Your task to perform on an android device: toggle notifications settings in the gmail app Image 0: 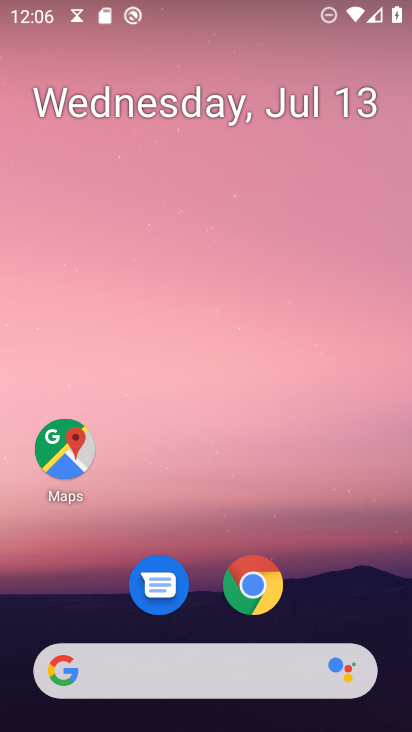
Step 0: press home button
Your task to perform on an android device: toggle notifications settings in the gmail app Image 1: 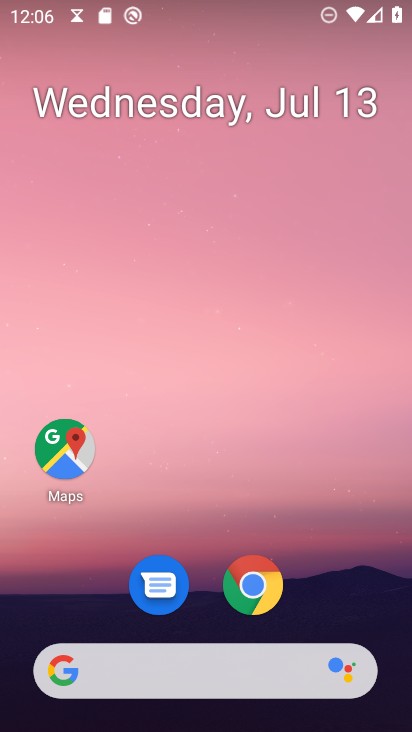
Step 1: drag from (178, 591) to (301, 163)
Your task to perform on an android device: toggle notifications settings in the gmail app Image 2: 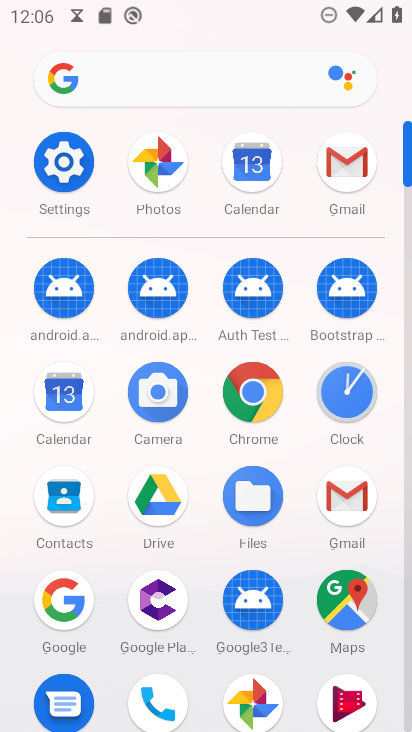
Step 2: click (335, 169)
Your task to perform on an android device: toggle notifications settings in the gmail app Image 3: 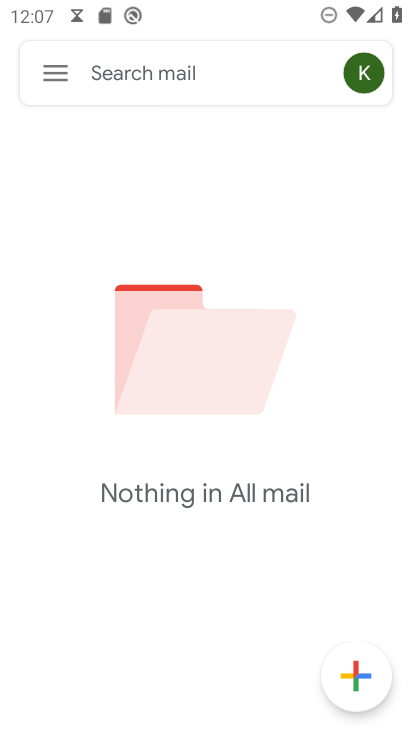
Step 3: click (63, 69)
Your task to perform on an android device: toggle notifications settings in the gmail app Image 4: 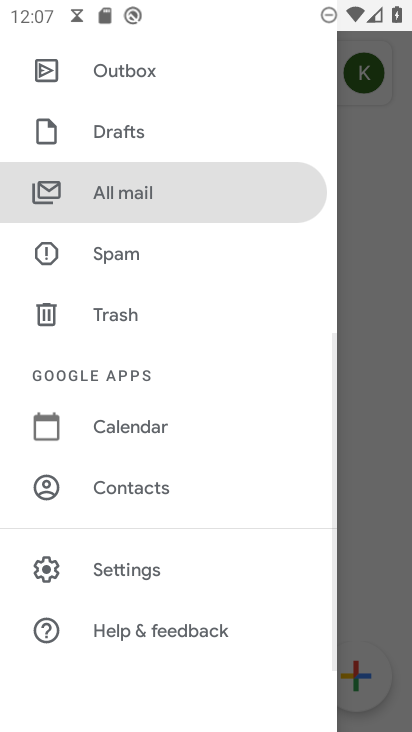
Step 4: click (151, 574)
Your task to perform on an android device: toggle notifications settings in the gmail app Image 5: 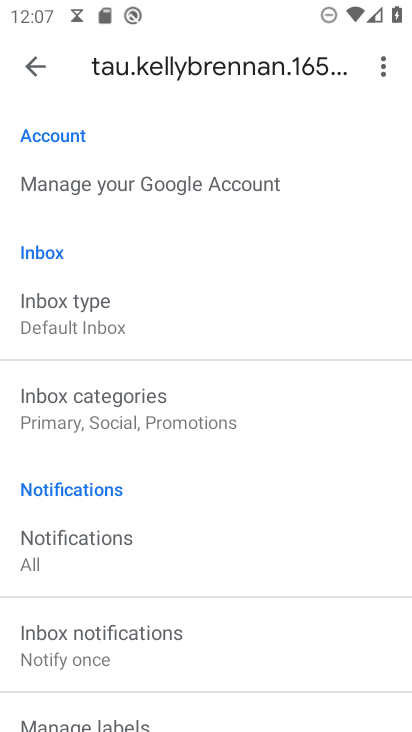
Step 5: click (95, 550)
Your task to perform on an android device: toggle notifications settings in the gmail app Image 6: 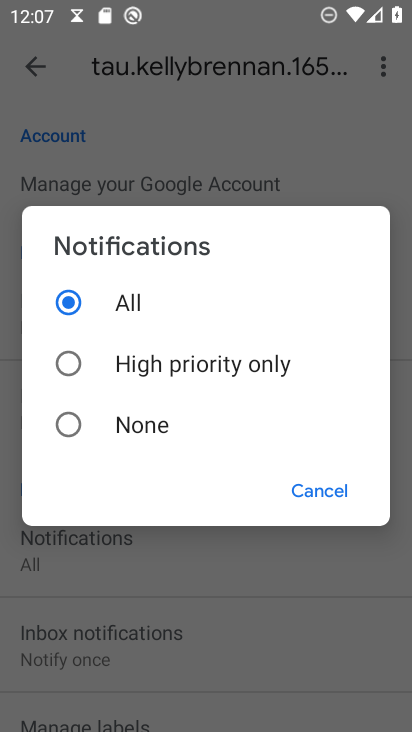
Step 6: click (73, 425)
Your task to perform on an android device: toggle notifications settings in the gmail app Image 7: 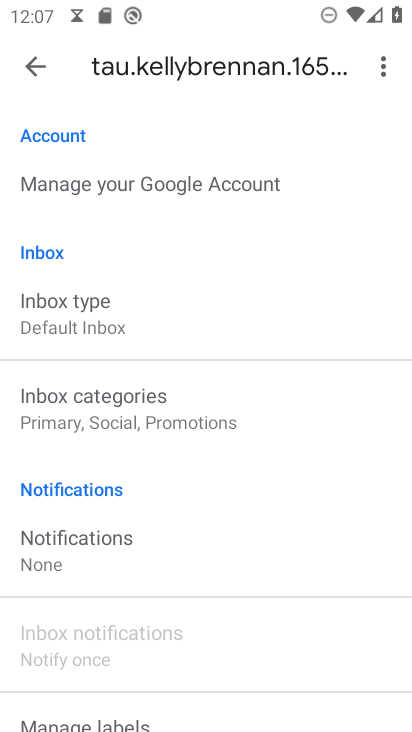
Step 7: task complete